Your task to perform on an android device: Go to CNN.com Image 0: 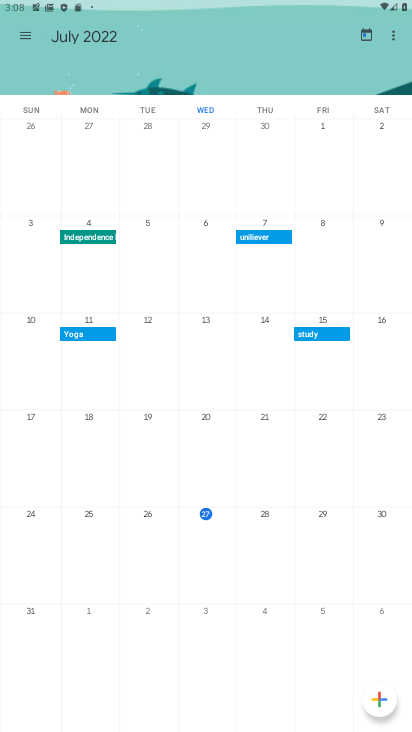
Step 0: press home button
Your task to perform on an android device: Go to CNN.com Image 1: 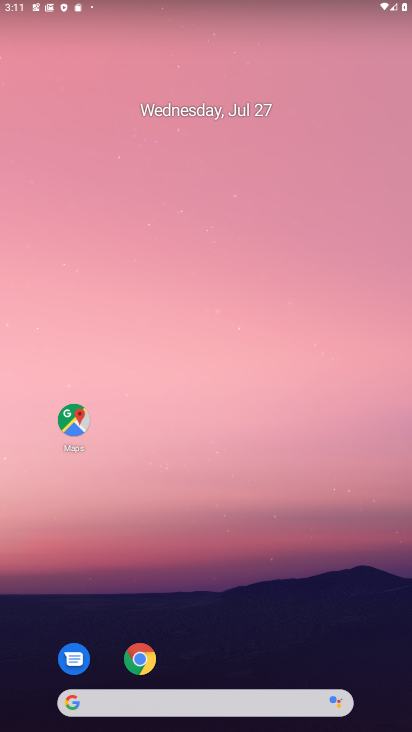
Step 1: drag from (248, 675) to (248, 132)
Your task to perform on an android device: Go to CNN.com Image 2: 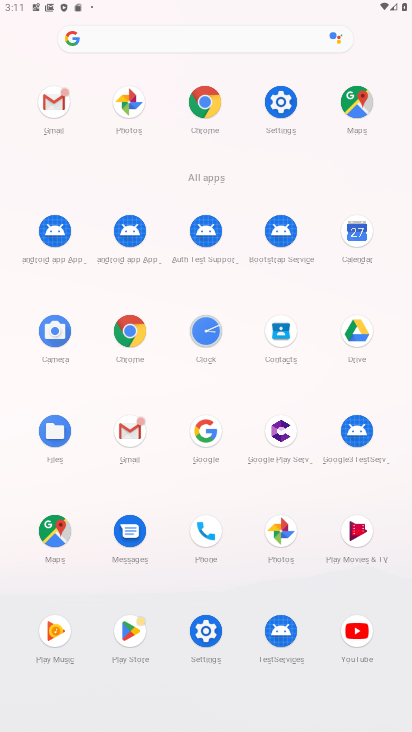
Step 2: click (200, 436)
Your task to perform on an android device: Go to CNN.com Image 3: 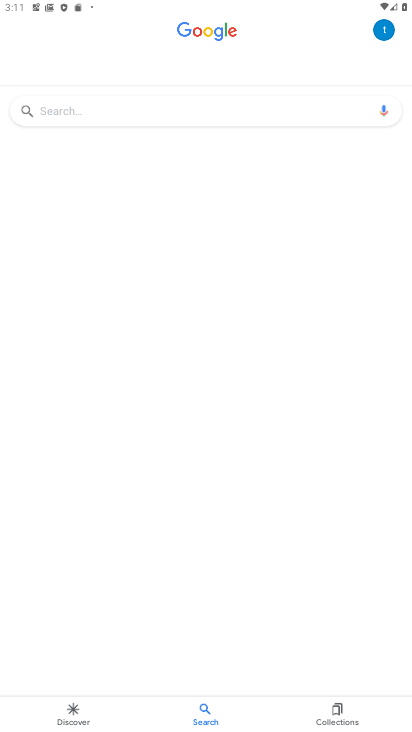
Step 3: click (93, 112)
Your task to perform on an android device: Go to CNN.com Image 4: 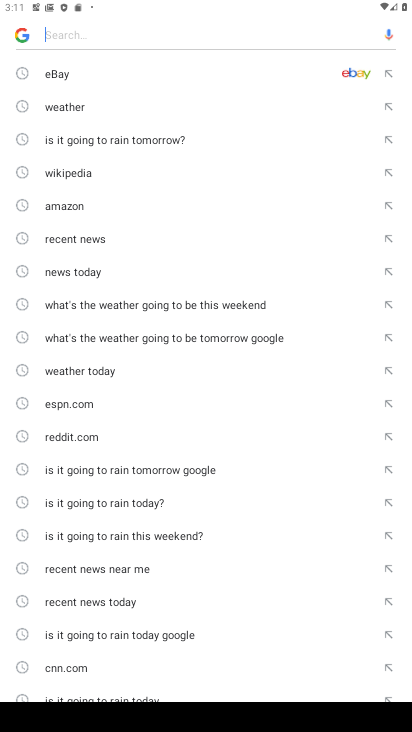
Step 4: click (85, 657)
Your task to perform on an android device: Go to CNN.com Image 5: 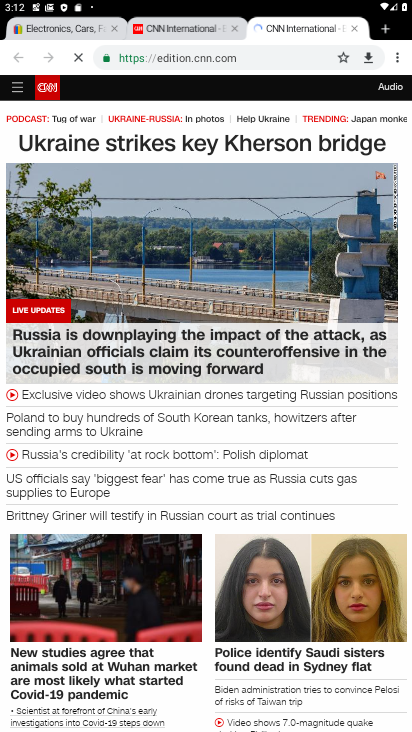
Step 5: task complete